Your task to perform on an android device: open app "Pluto TV - Live TV and Movies" (install if not already installed) and enter user name: "wools@yahoo.com" and password: "misplacing" Image 0: 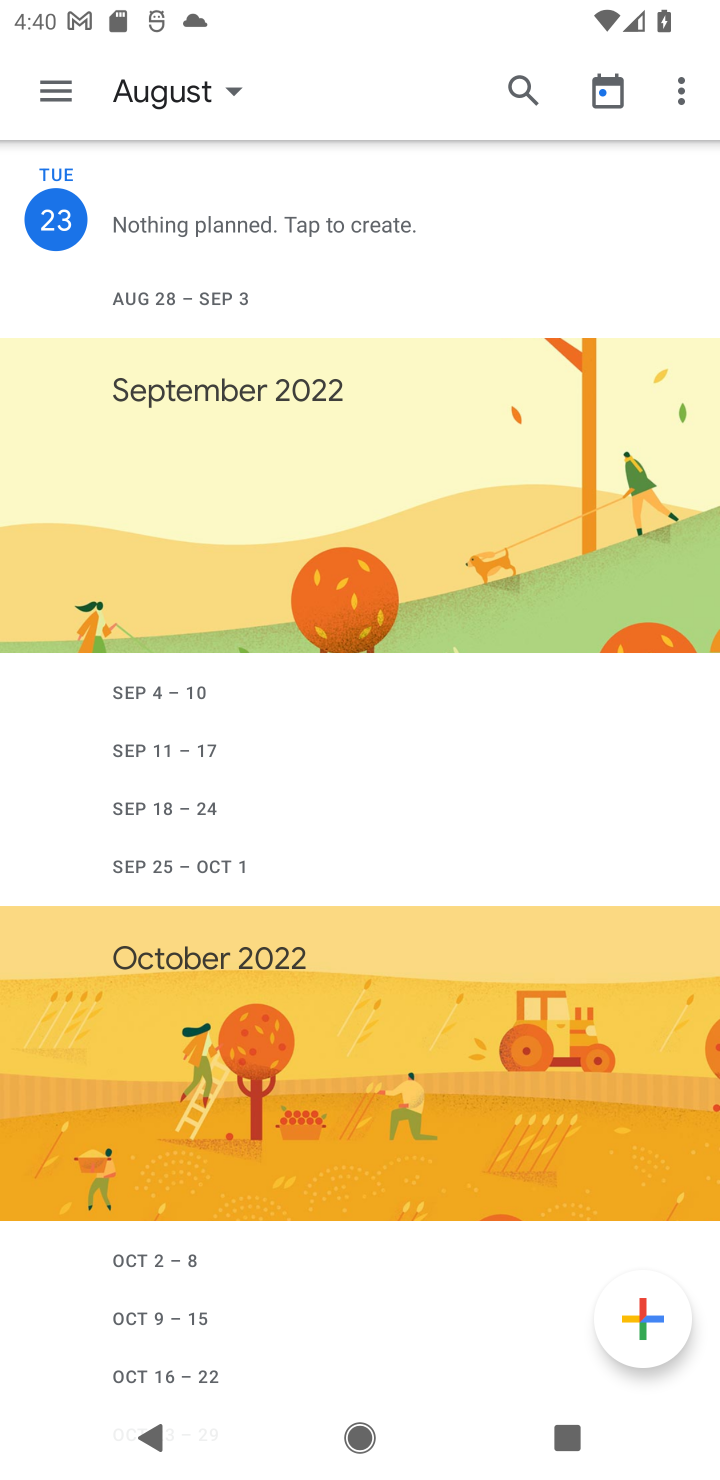
Step 0: press home button
Your task to perform on an android device: open app "Pluto TV - Live TV and Movies" (install if not already installed) and enter user name: "wools@yahoo.com" and password: "misplacing" Image 1: 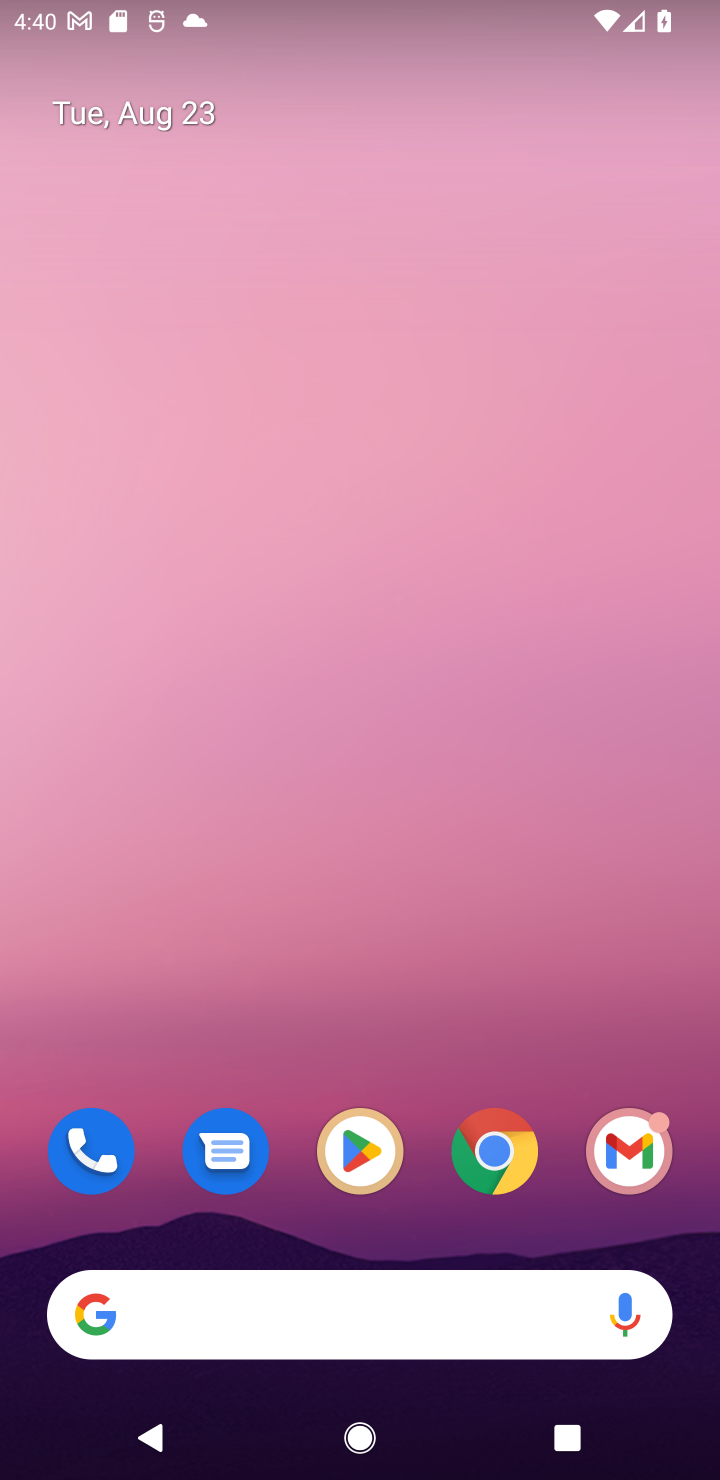
Step 1: click (366, 1155)
Your task to perform on an android device: open app "Pluto TV - Live TV and Movies" (install if not already installed) and enter user name: "wools@yahoo.com" and password: "misplacing" Image 2: 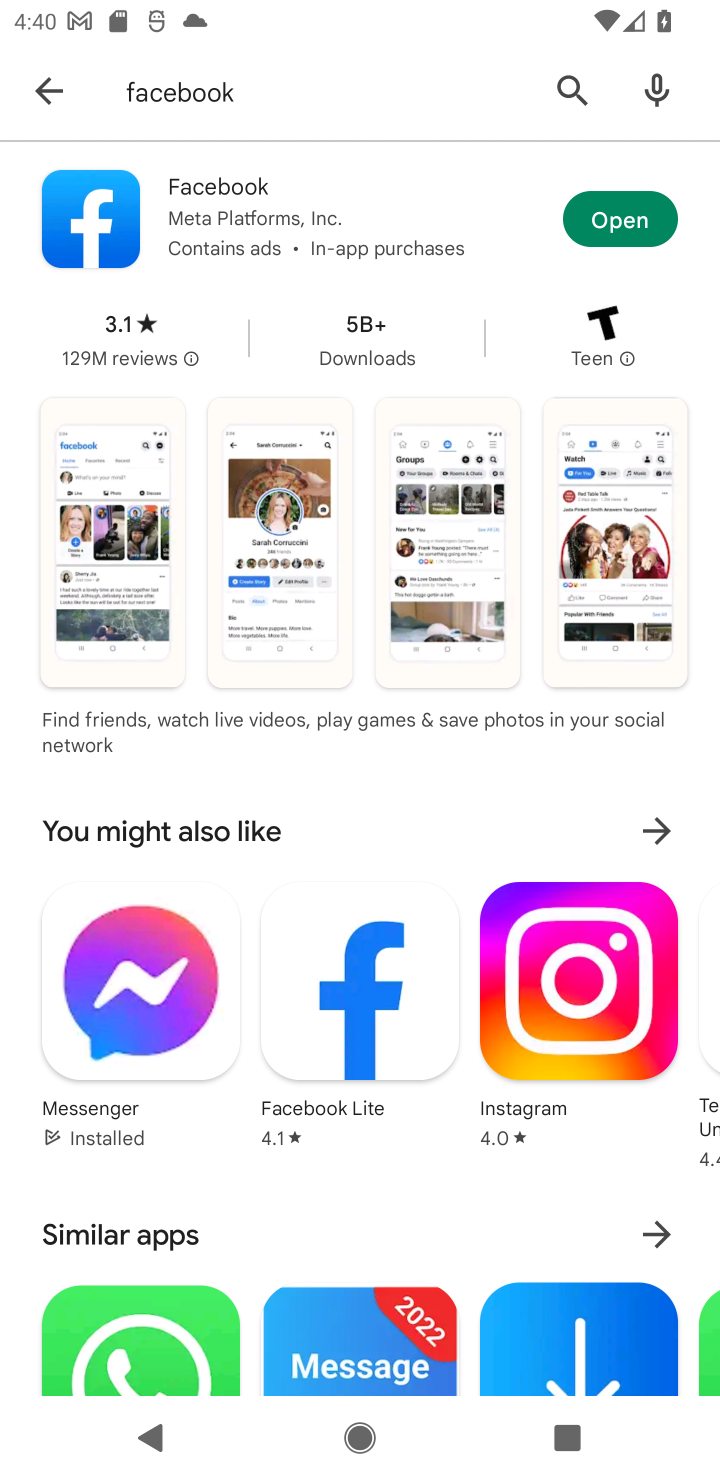
Step 2: click (566, 77)
Your task to perform on an android device: open app "Pluto TV - Live TV and Movies" (install if not already installed) and enter user name: "wools@yahoo.com" and password: "misplacing" Image 3: 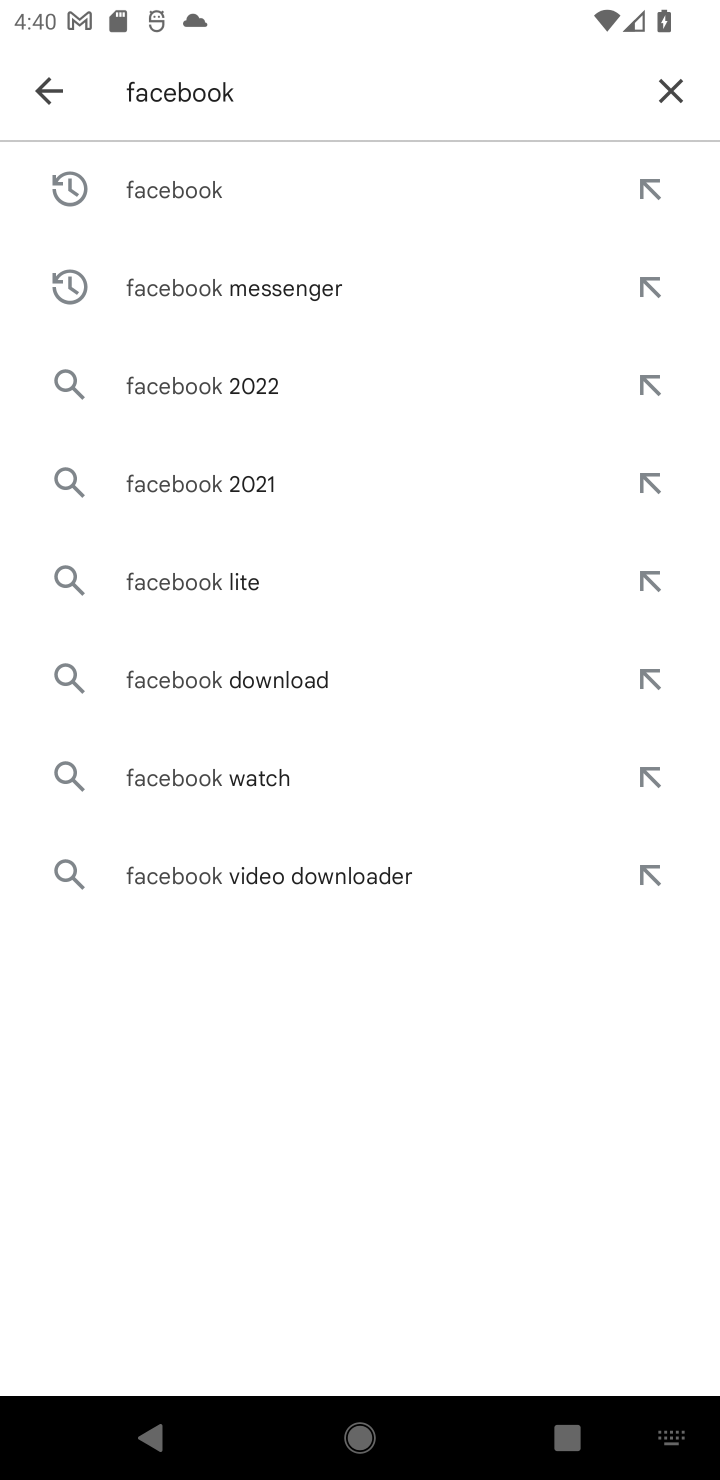
Step 3: click (675, 95)
Your task to perform on an android device: open app "Pluto TV - Live TV and Movies" (install if not already installed) and enter user name: "wools@yahoo.com" and password: "misplacing" Image 4: 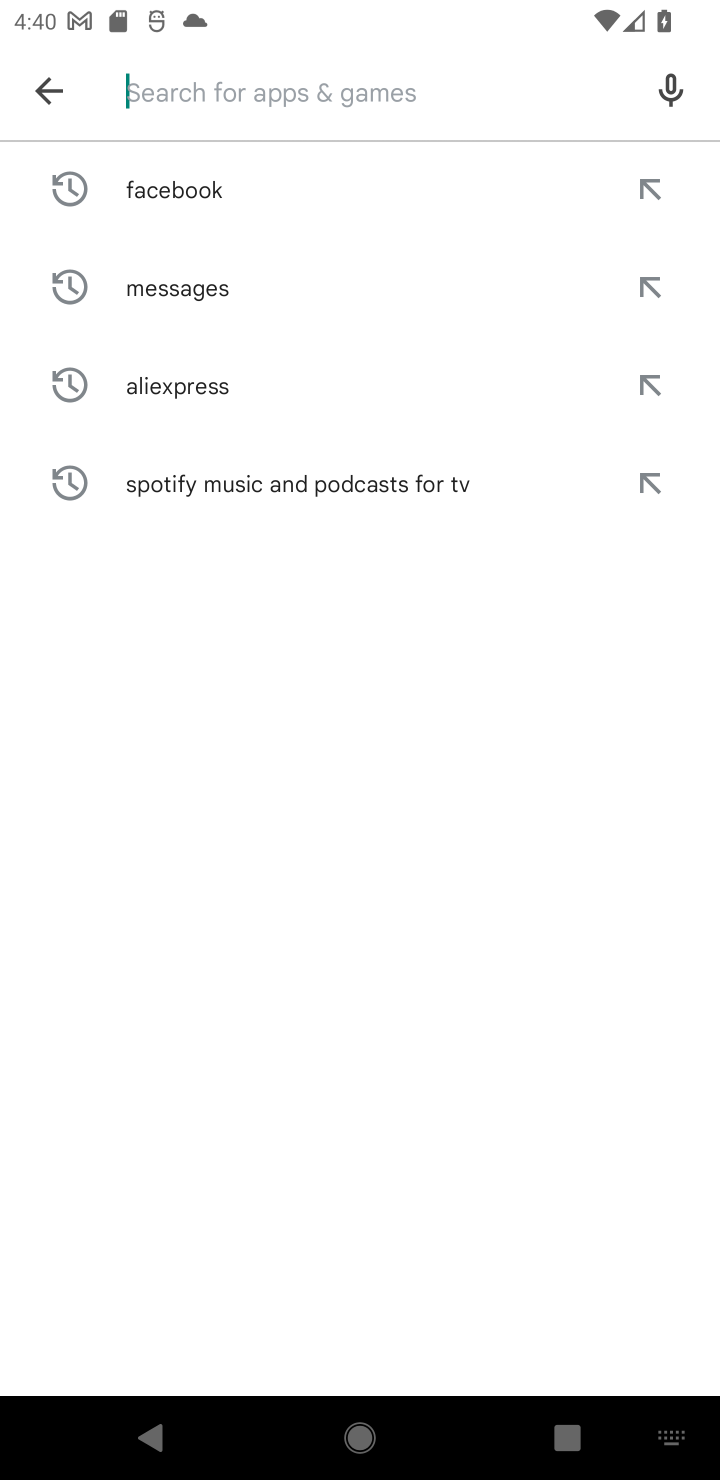
Step 4: type "Pluto TV - Live TV and Movies"
Your task to perform on an android device: open app "Pluto TV - Live TV and Movies" (install if not already installed) and enter user name: "wools@yahoo.com" and password: "misplacing" Image 5: 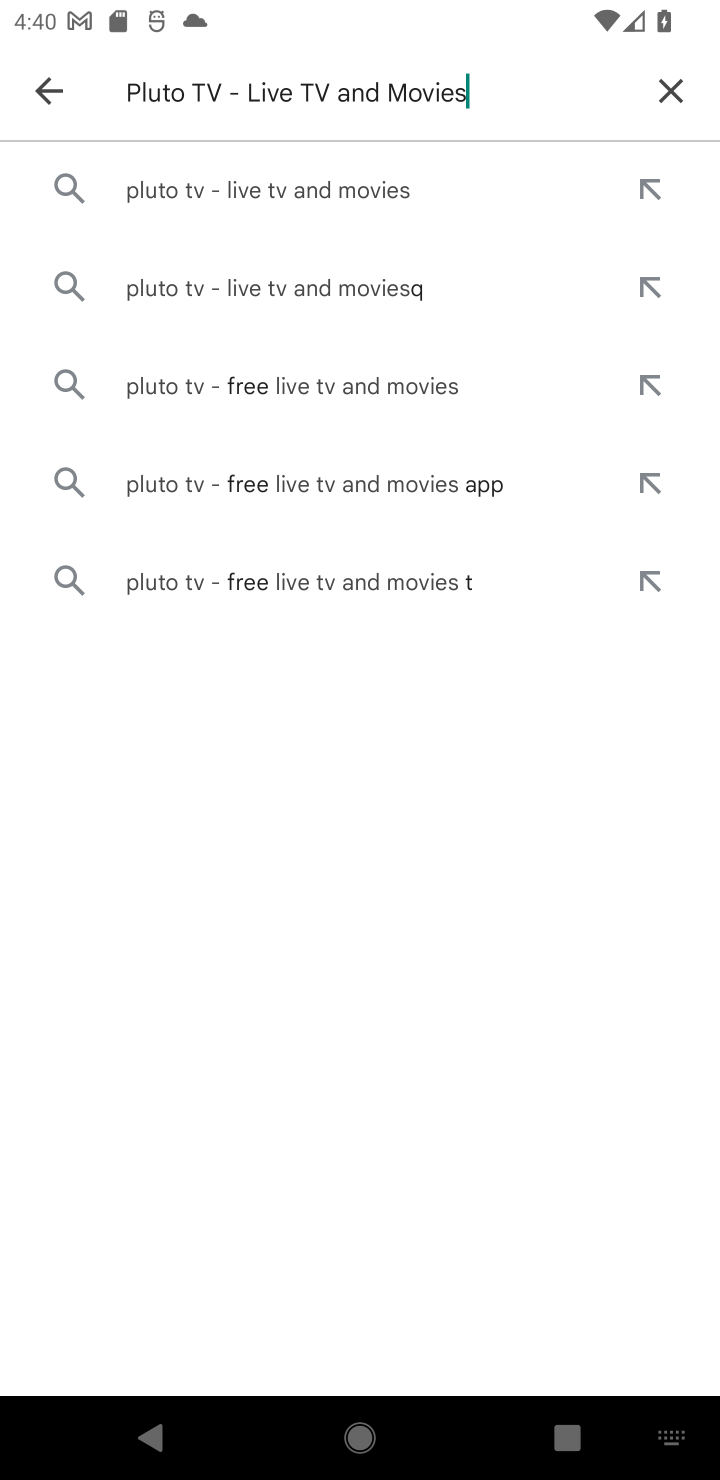
Step 5: click (241, 205)
Your task to perform on an android device: open app "Pluto TV - Live TV and Movies" (install if not already installed) and enter user name: "wools@yahoo.com" and password: "misplacing" Image 6: 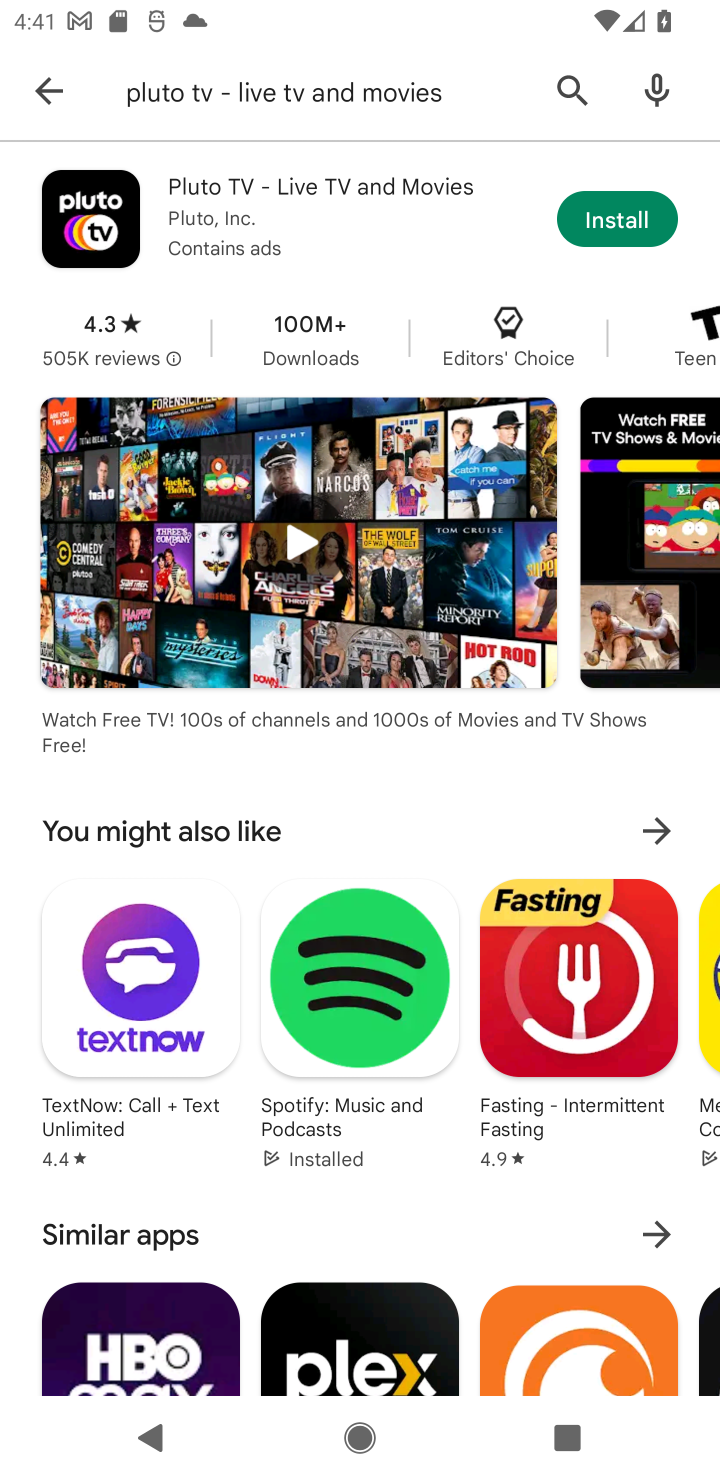
Step 6: click (638, 204)
Your task to perform on an android device: open app "Pluto TV - Live TV and Movies" (install if not already installed) and enter user name: "wools@yahoo.com" and password: "misplacing" Image 7: 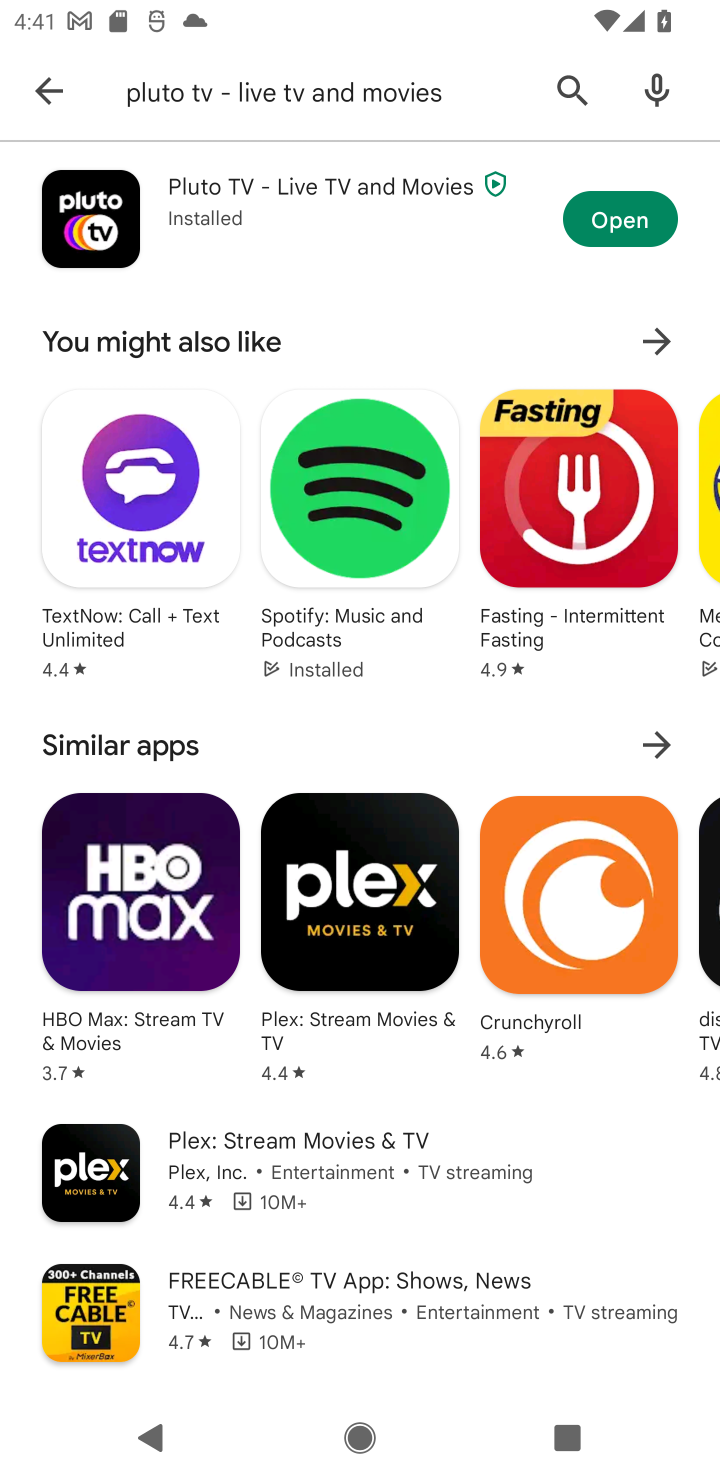
Step 7: click (618, 219)
Your task to perform on an android device: open app "Pluto TV - Live TV and Movies" (install if not already installed) and enter user name: "wools@yahoo.com" and password: "misplacing" Image 8: 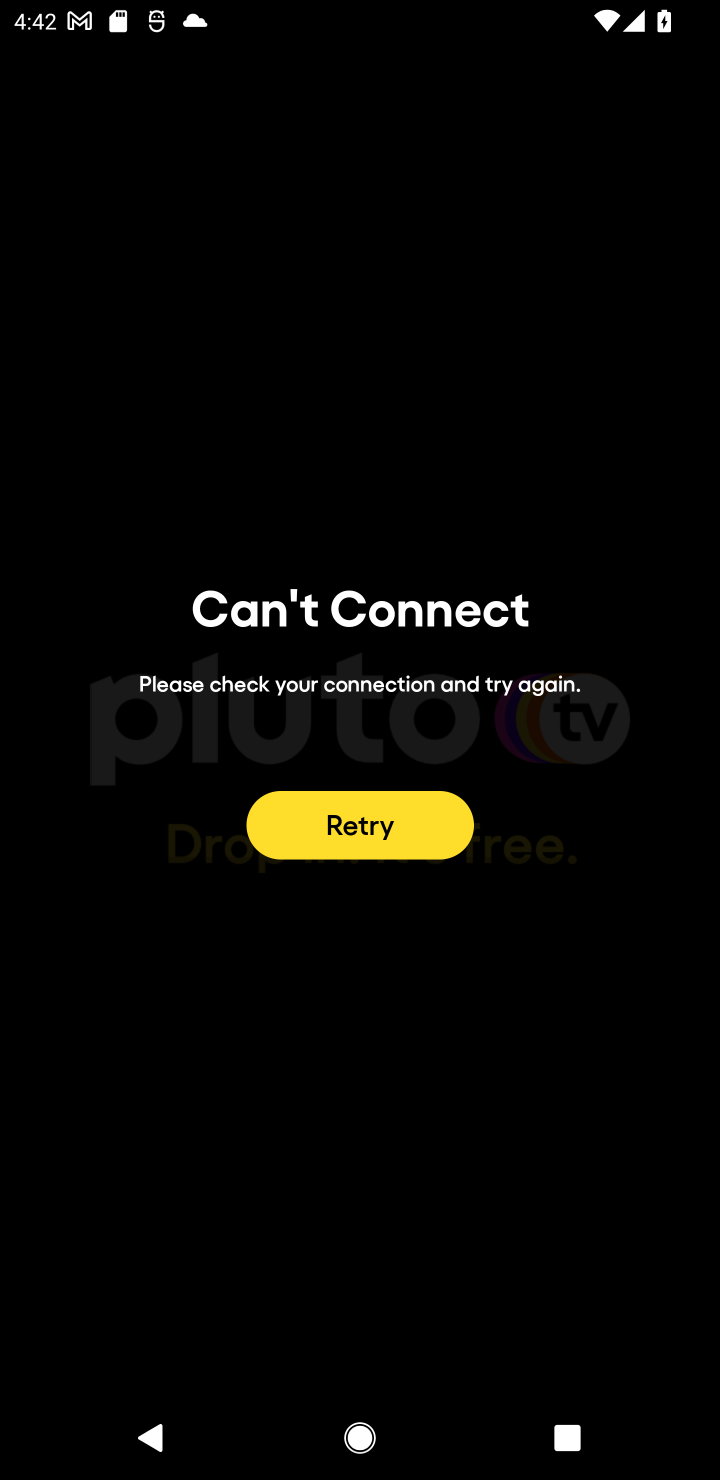
Step 8: task complete